Your task to perform on an android device: Open eBay Image 0: 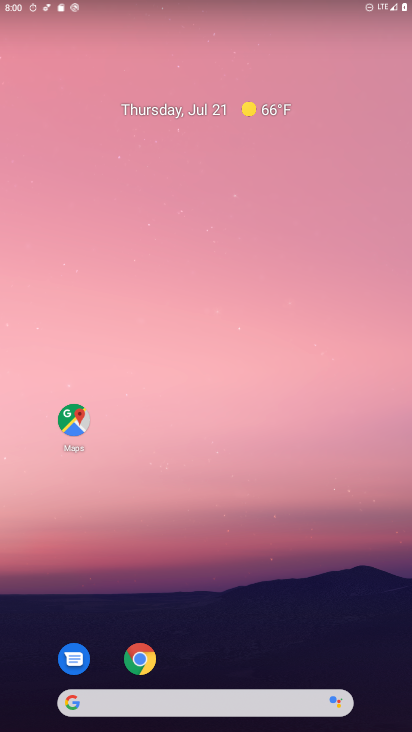
Step 0: drag from (205, 671) to (261, 164)
Your task to perform on an android device: Open eBay Image 1: 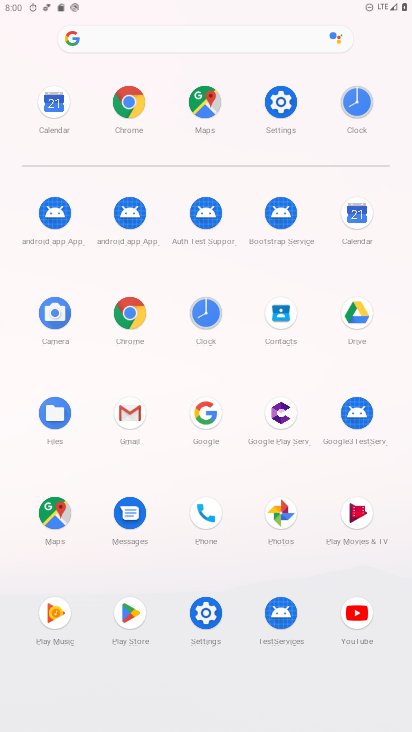
Step 1: click (159, 38)
Your task to perform on an android device: Open eBay Image 2: 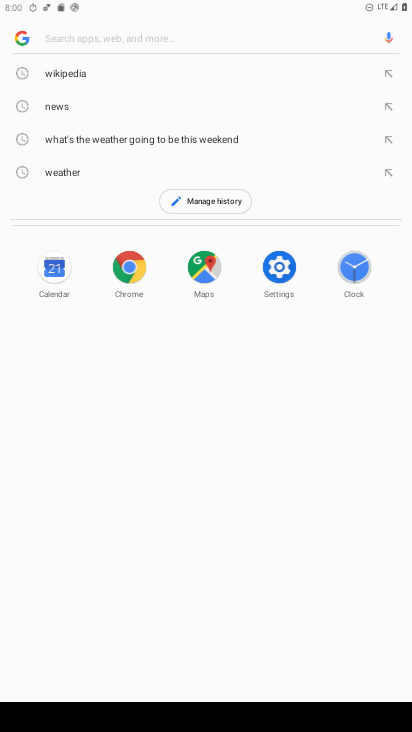
Step 2: type "eba"
Your task to perform on an android device: Open eBay Image 3: 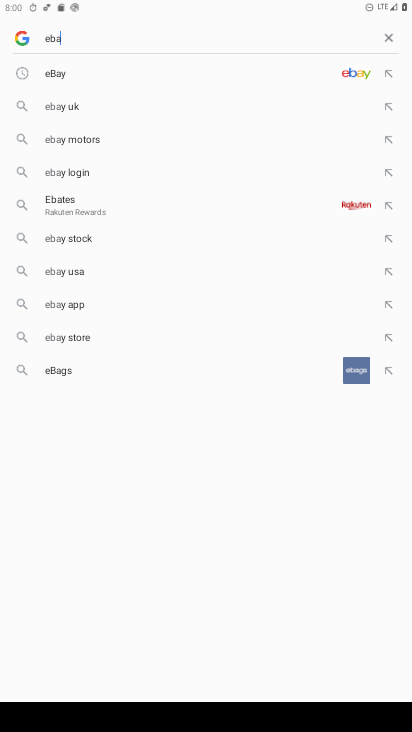
Step 3: click (133, 69)
Your task to perform on an android device: Open eBay Image 4: 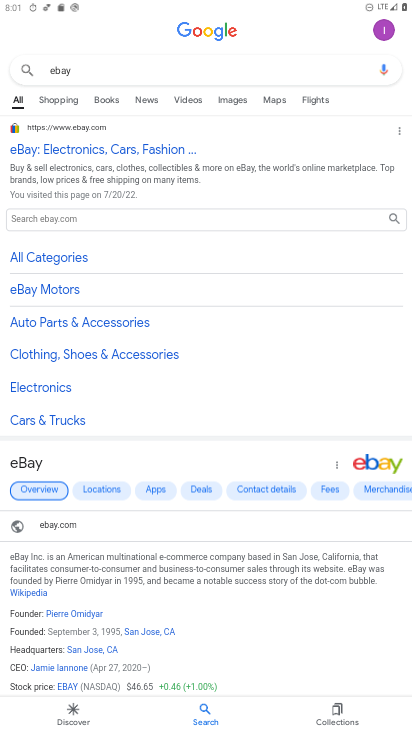
Step 4: click (97, 145)
Your task to perform on an android device: Open eBay Image 5: 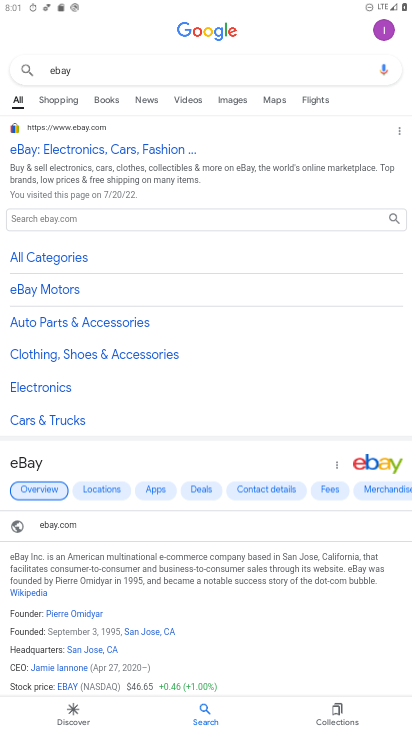
Step 5: task complete